Your task to perform on an android device: Search for "rayovac triple a" on walmart, select the first entry, and add it to the cart. Image 0: 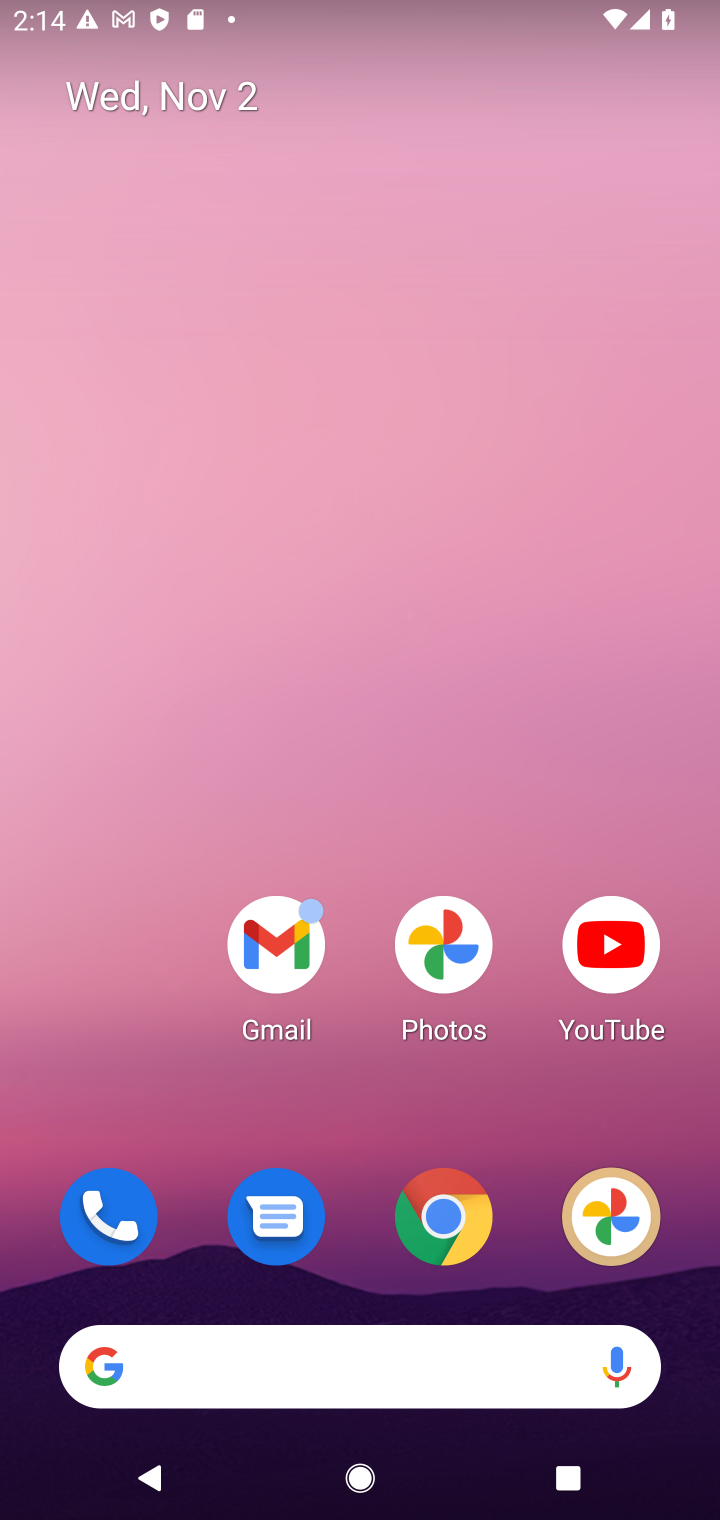
Step 0: click (420, 1211)
Your task to perform on an android device: Search for "rayovac triple a" on walmart, select the first entry, and add it to the cart. Image 1: 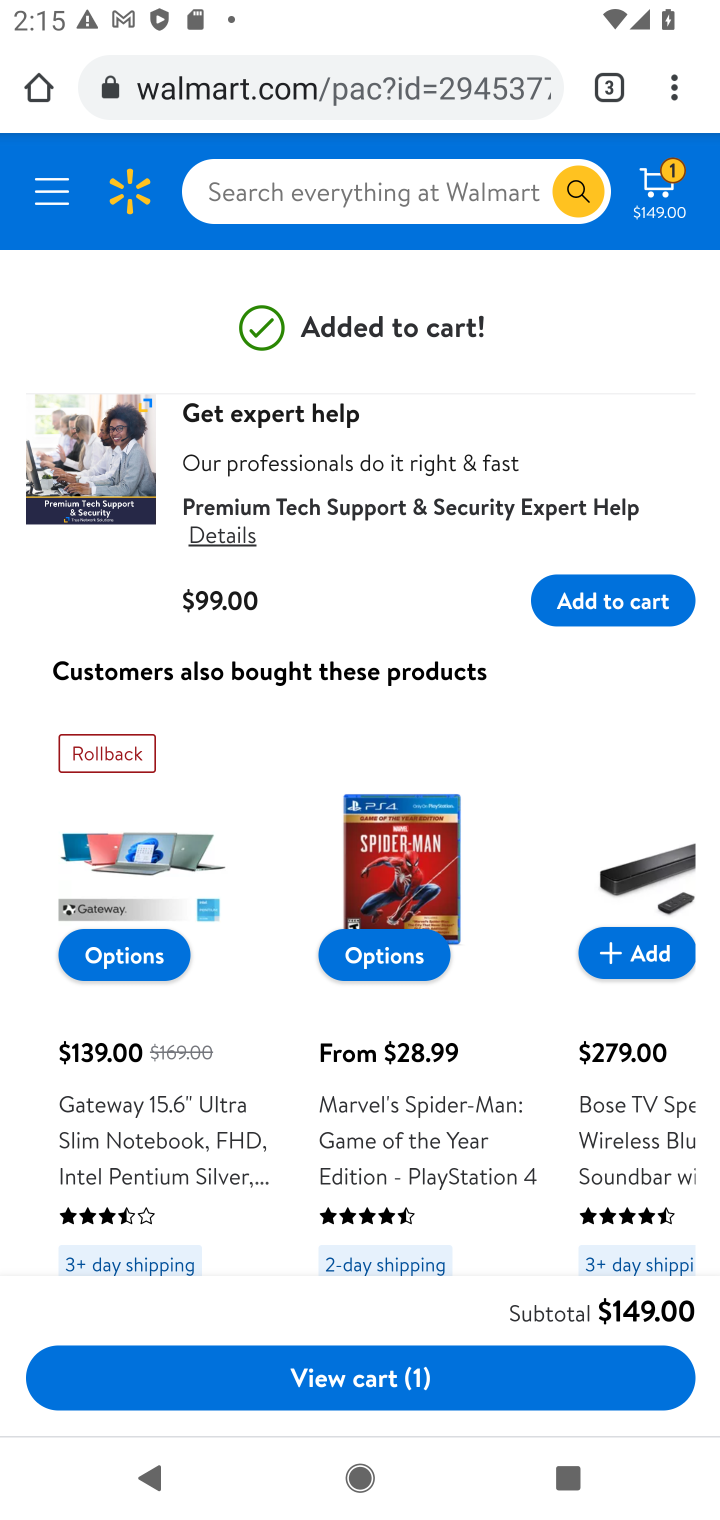
Step 1: click (379, 177)
Your task to perform on an android device: Search for "rayovac triple a" on walmart, select the first entry, and add it to the cart. Image 2: 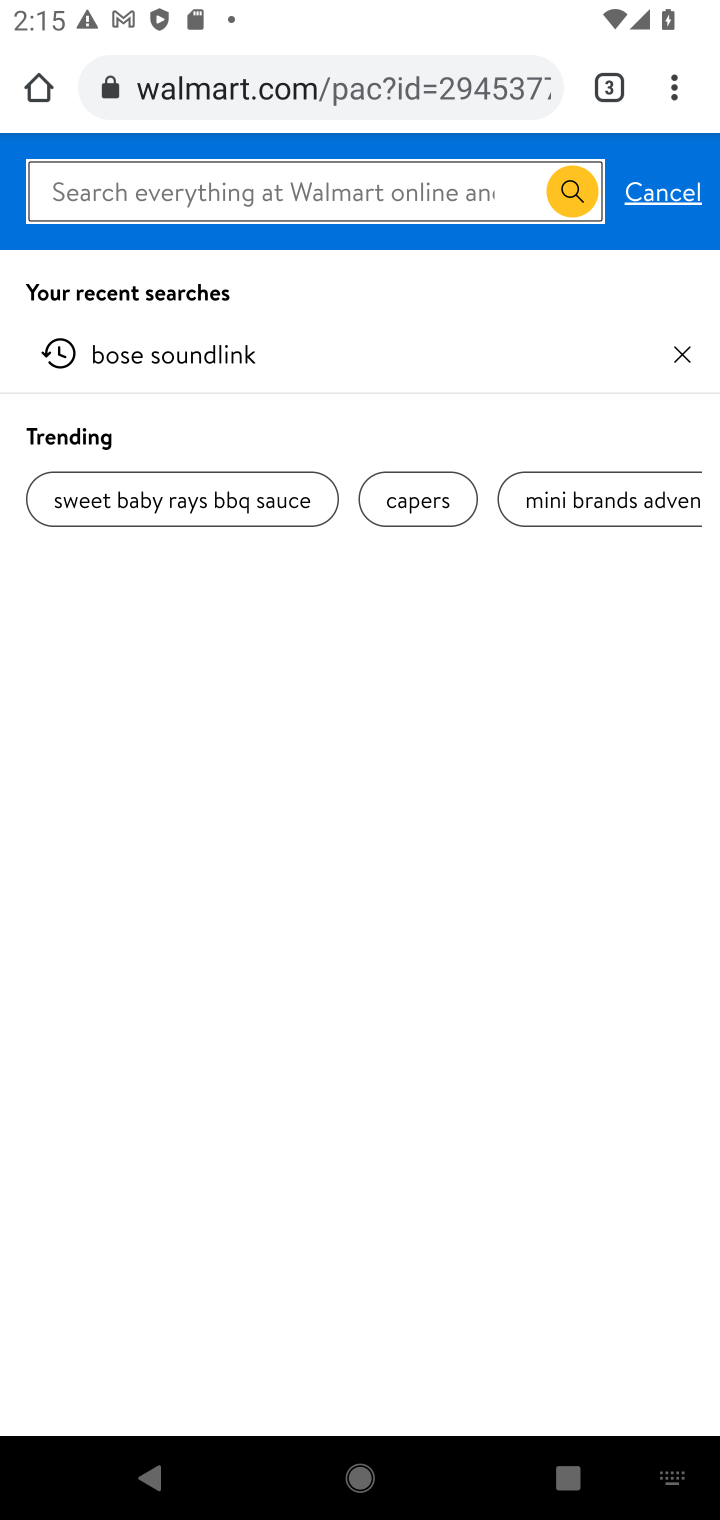
Step 2: type "rayovac triple a"
Your task to perform on an android device: Search for "rayovac triple a" on walmart, select the first entry, and add it to the cart. Image 3: 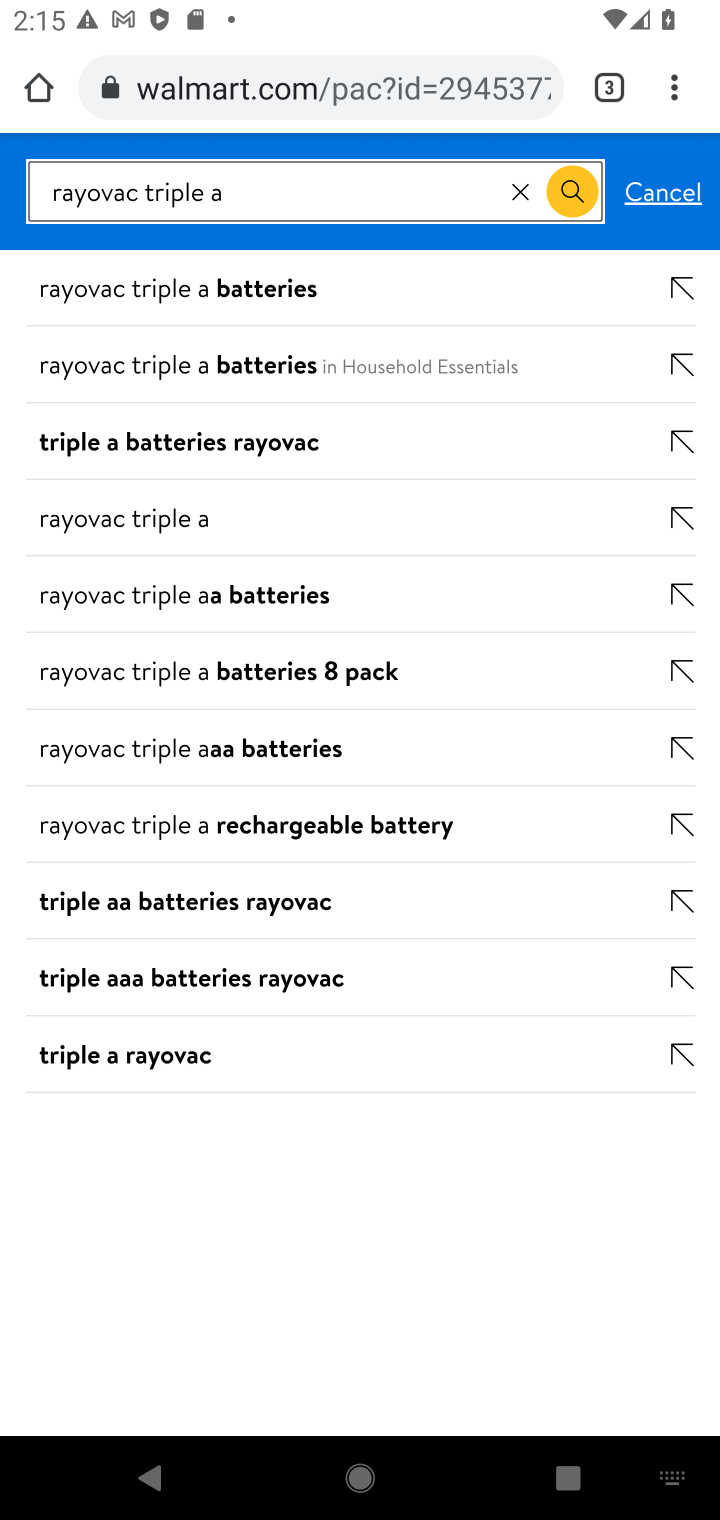
Step 3: click (255, 363)
Your task to perform on an android device: Search for "rayovac triple a" on walmart, select the first entry, and add it to the cart. Image 4: 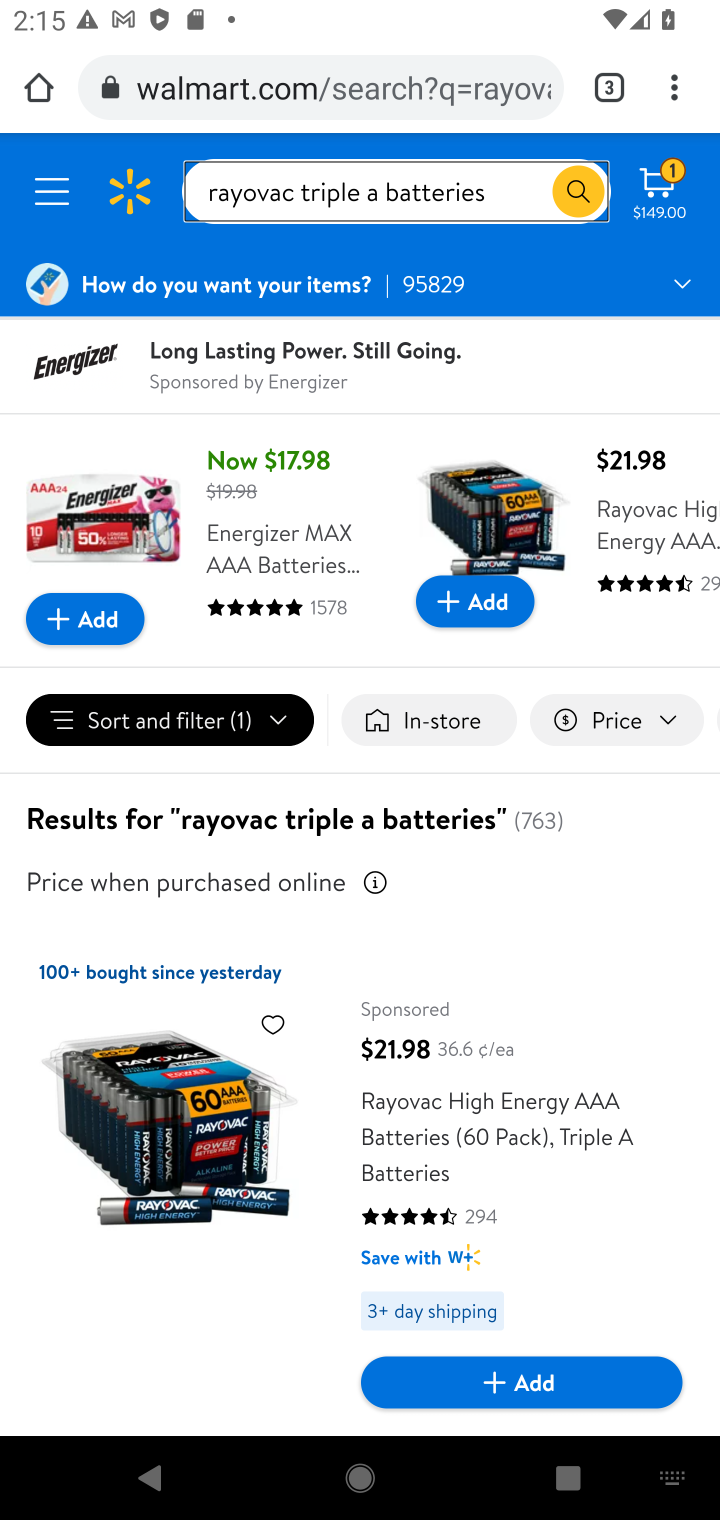
Step 4: click (491, 1386)
Your task to perform on an android device: Search for "rayovac triple a" on walmart, select the first entry, and add it to the cart. Image 5: 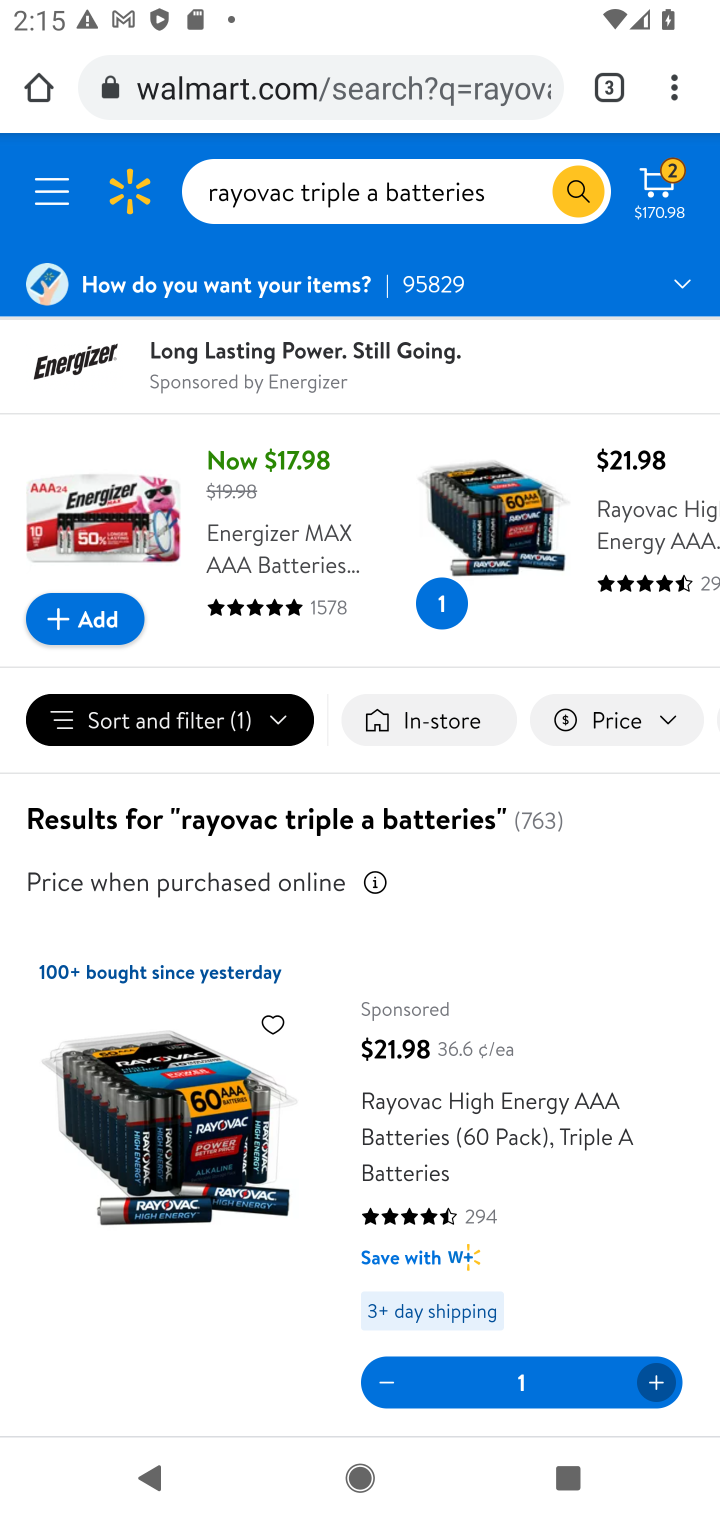
Step 5: task complete